Your task to perform on an android device: set the stopwatch Image 0: 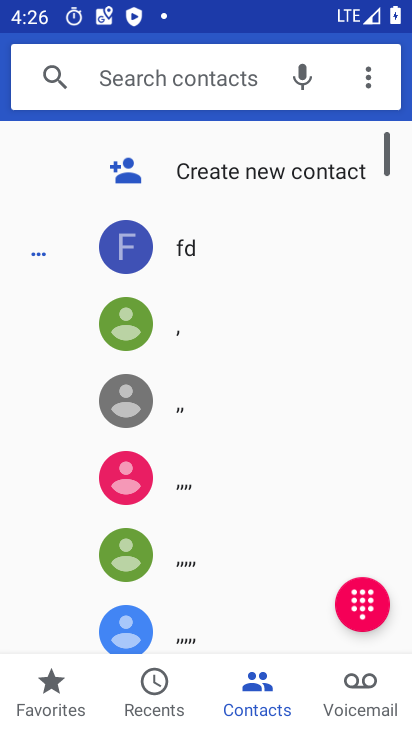
Step 0: press home button
Your task to perform on an android device: set the stopwatch Image 1: 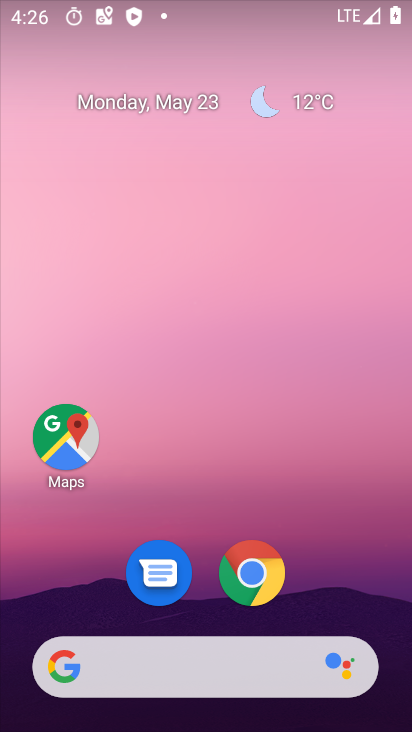
Step 1: drag from (49, 537) to (240, 159)
Your task to perform on an android device: set the stopwatch Image 2: 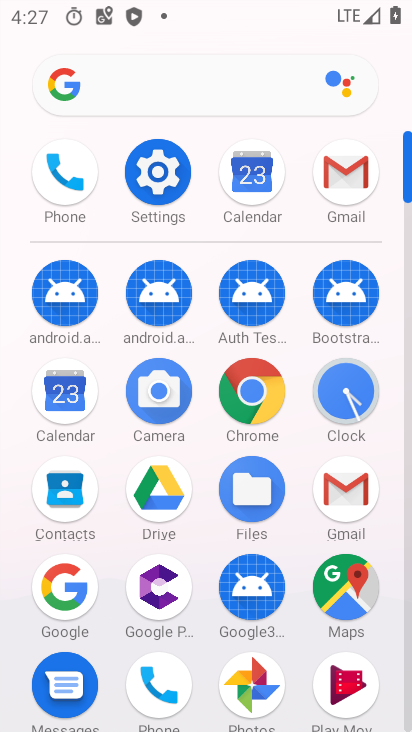
Step 2: click (338, 385)
Your task to perform on an android device: set the stopwatch Image 3: 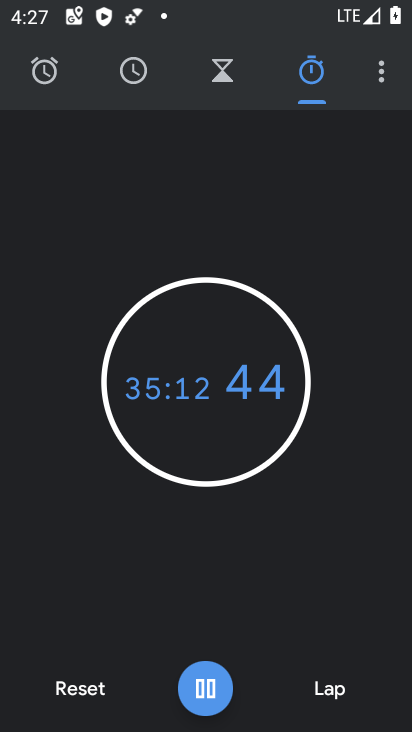
Step 3: task complete